Your task to perform on an android device: What's on my calendar today? Image 0: 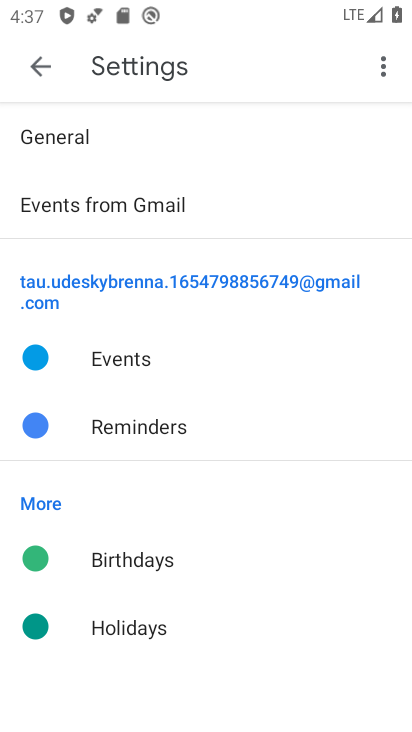
Step 0: press home button
Your task to perform on an android device: What's on my calendar today? Image 1: 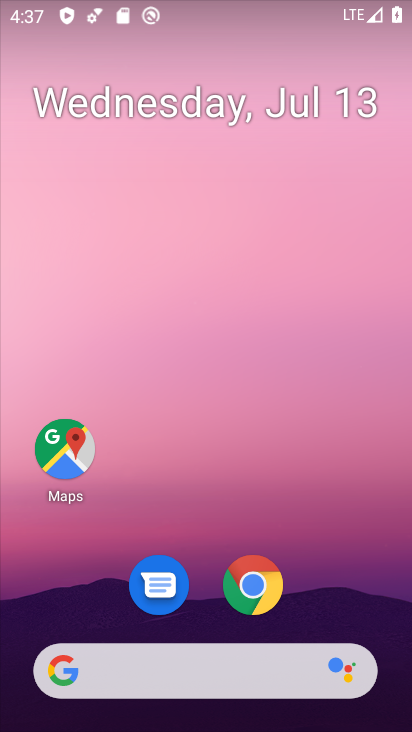
Step 1: drag from (350, 599) to (332, 60)
Your task to perform on an android device: What's on my calendar today? Image 2: 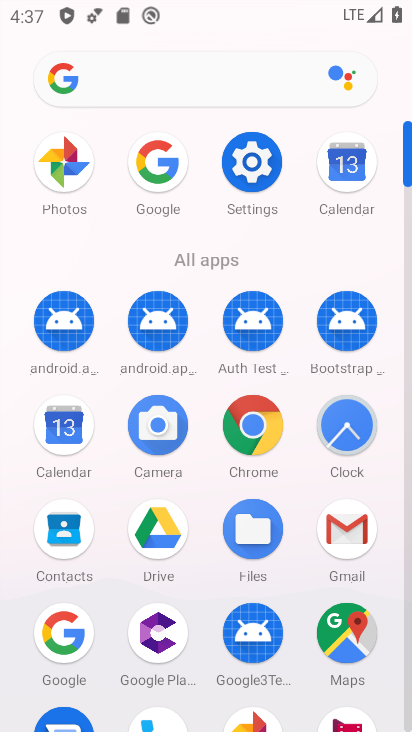
Step 2: click (340, 163)
Your task to perform on an android device: What's on my calendar today? Image 3: 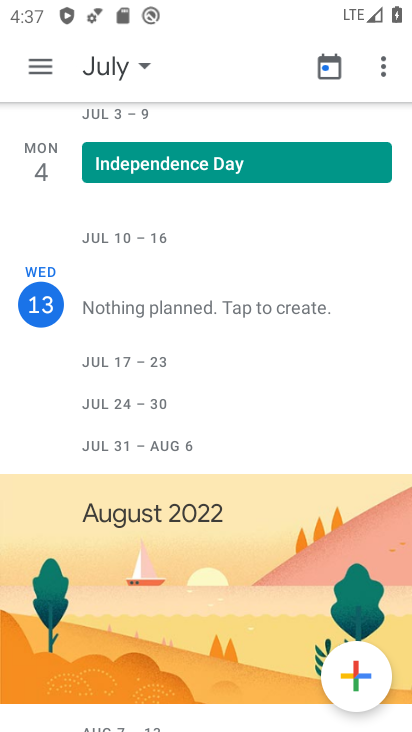
Step 3: drag from (251, 265) to (213, 453)
Your task to perform on an android device: What's on my calendar today? Image 4: 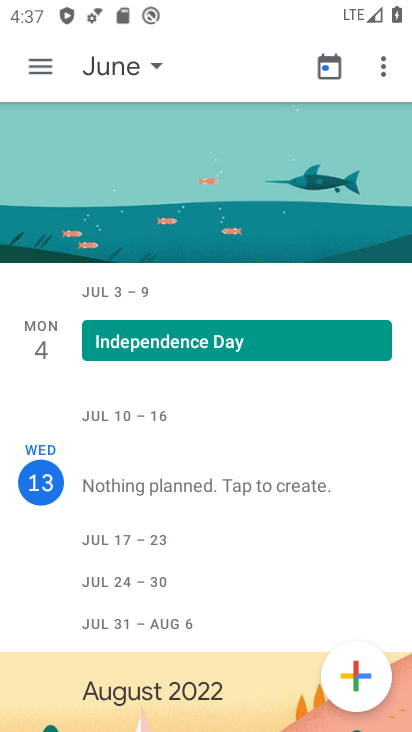
Step 4: click (45, 483)
Your task to perform on an android device: What's on my calendar today? Image 5: 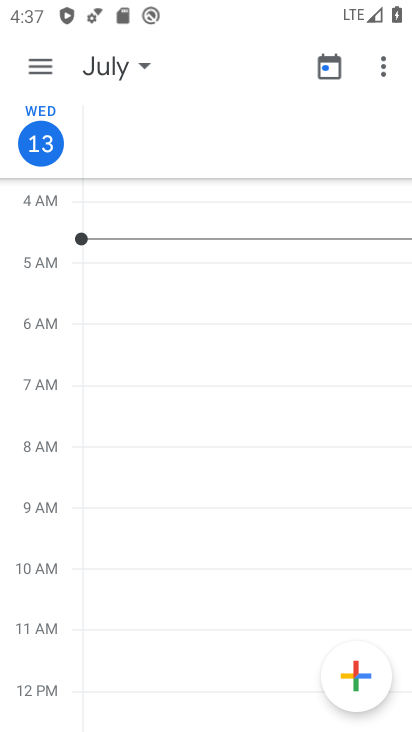
Step 5: task complete